Your task to perform on an android device: Show me productivity apps on the Play Store Image 0: 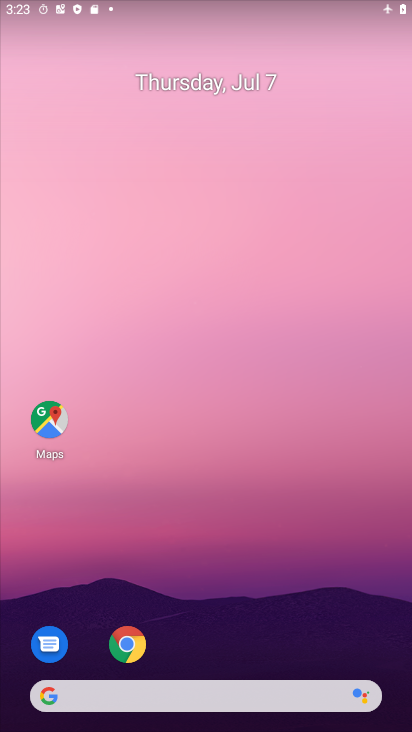
Step 0: drag from (239, 661) to (151, 50)
Your task to perform on an android device: Show me productivity apps on the Play Store Image 1: 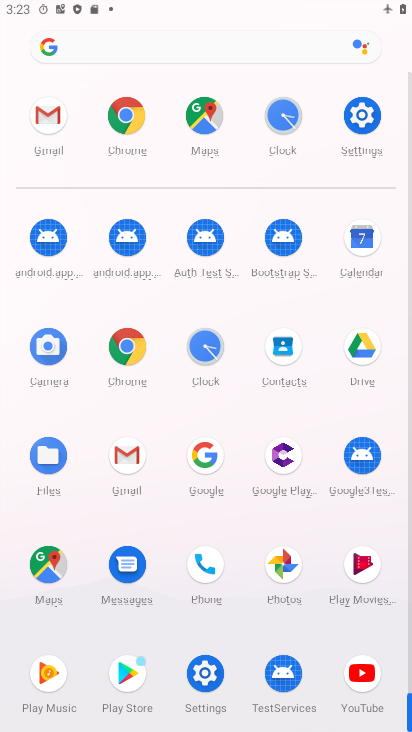
Step 1: click (103, 679)
Your task to perform on an android device: Show me productivity apps on the Play Store Image 2: 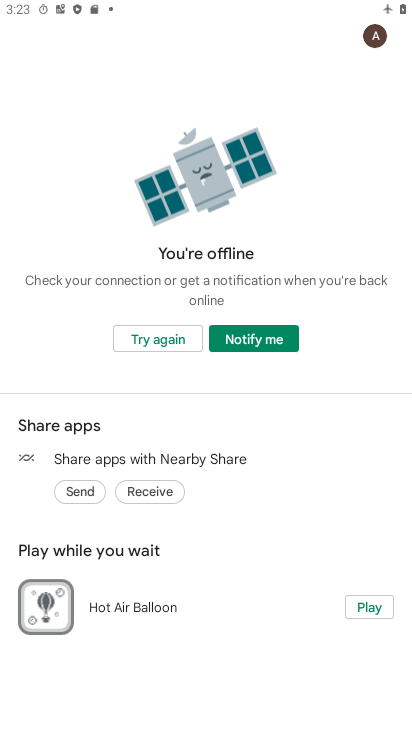
Step 2: click (253, 335)
Your task to perform on an android device: Show me productivity apps on the Play Store Image 3: 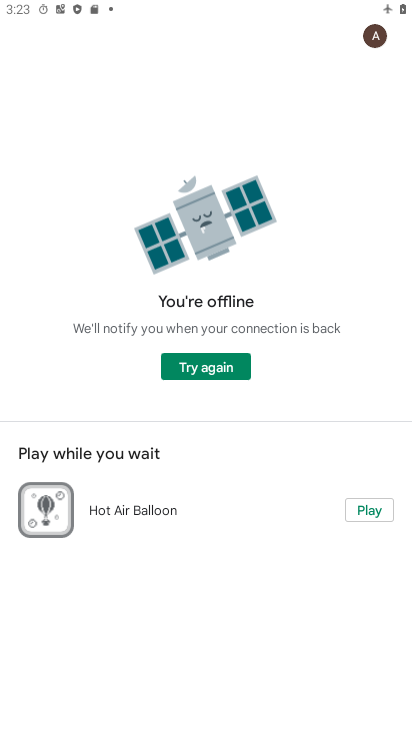
Step 3: task complete